Your task to perform on an android device: Open Chrome and go to settings Image 0: 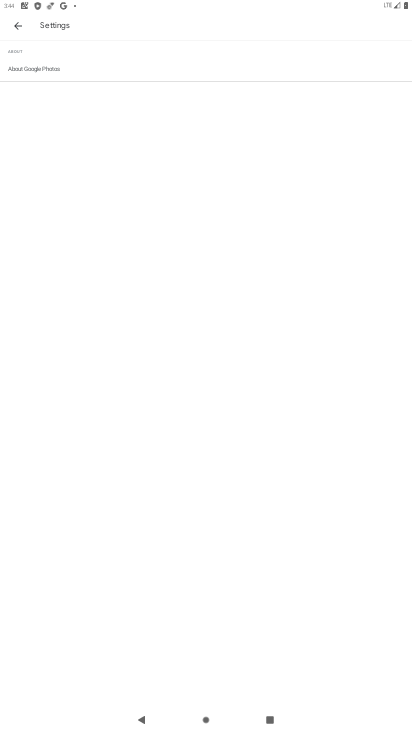
Step 0: press home button
Your task to perform on an android device: Open Chrome and go to settings Image 1: 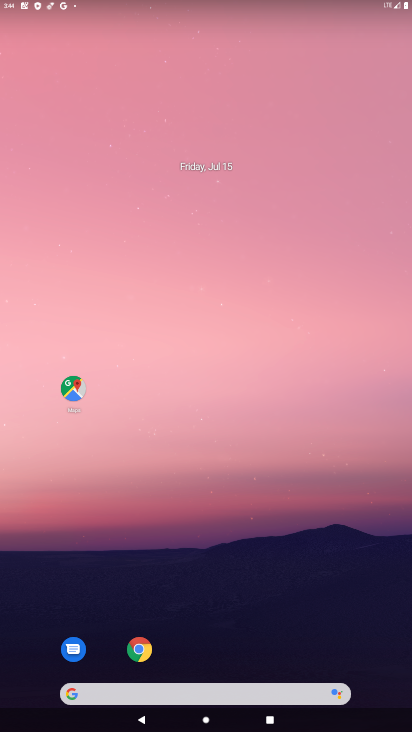
Step 1: click (136, 662)
Your task to perform on an android device: Open Chrome and go to settings Image 2: 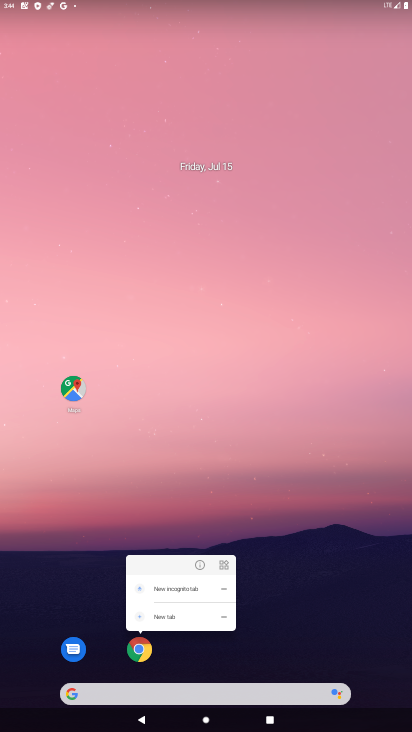
Step 2: click (134, 657)
Your task to perform on an android device: Open Chrome and go to settings Image 3: 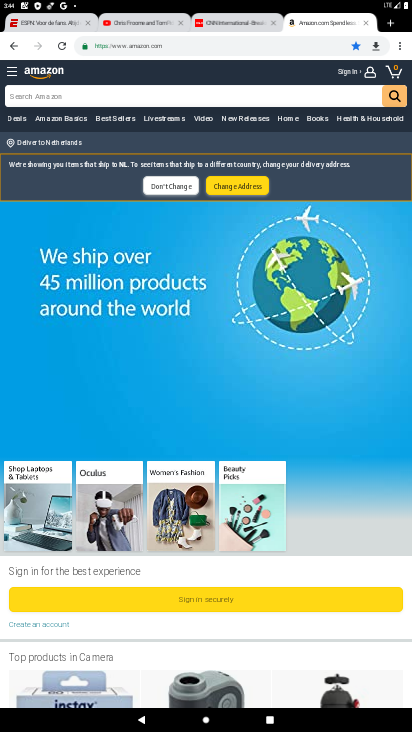
Step 3: click (396, 49)
Your task to perform on an android device: Open Chrome and go to settings Image 4: 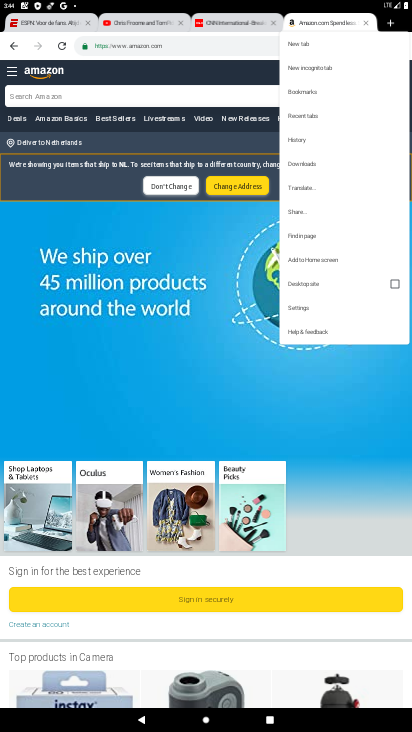
Step 4: click (327, 308)
Your task to perform on an android device: Open Chrome and go to settings Image 5: 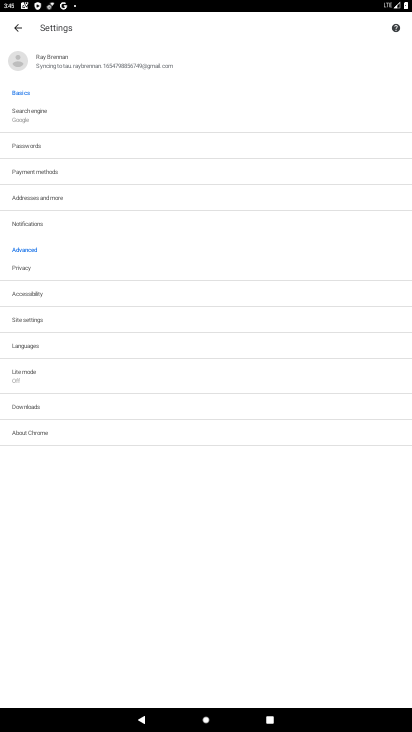
Step 5: task complete